Your task to perform on an android device: set the stopwatch Image 0: 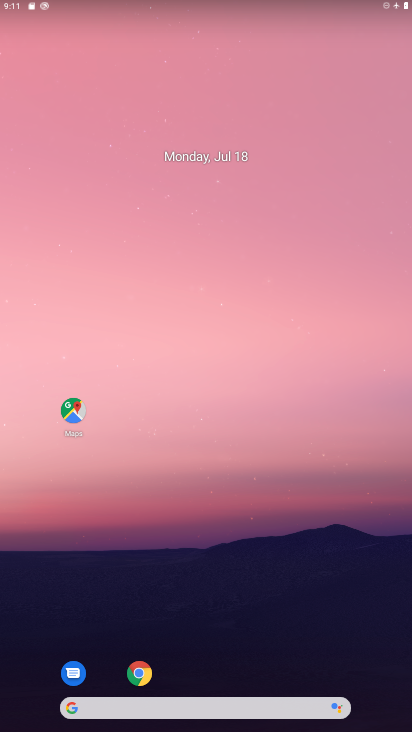
Step 0: press home button
Your task to perform on an android device: set the stopwatch Image 1: 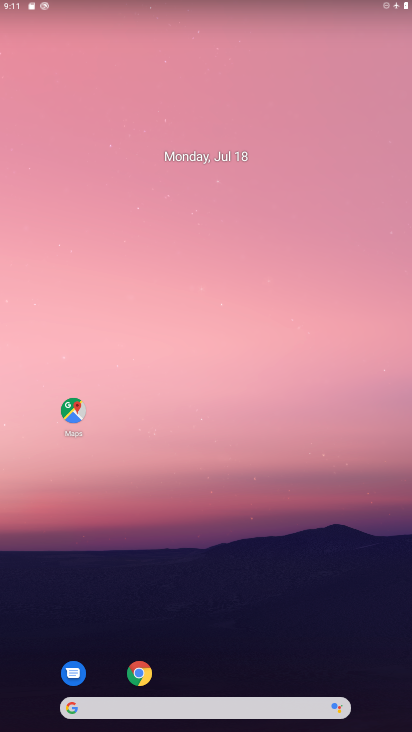
Step 1: drag from (293, 651) to (254, 56)
Your task to perform on an android device: set the stopwatch Image 2: 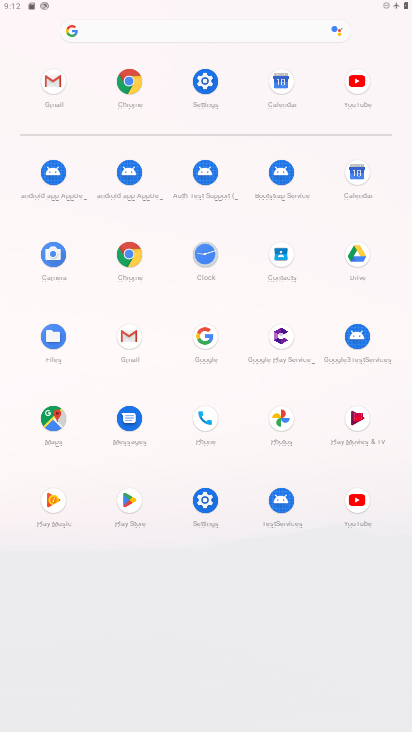
Step 2: click (201, 250)
Your task to perform on an android device: set the stopwatch Image 3: 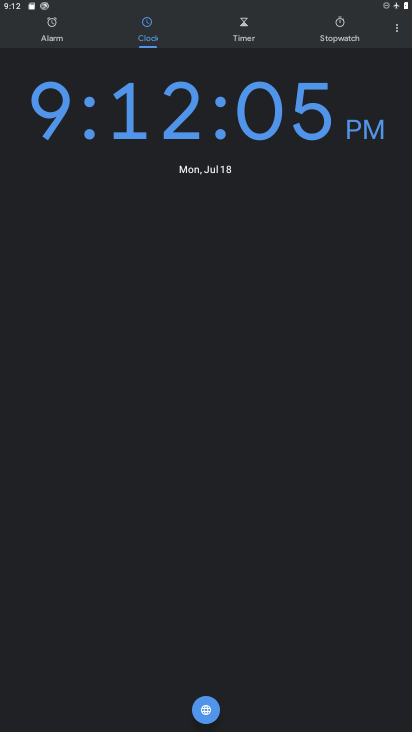
Step 3: click (347, 19)
Your task to perform on an android device: set the stopwatch Image 4: 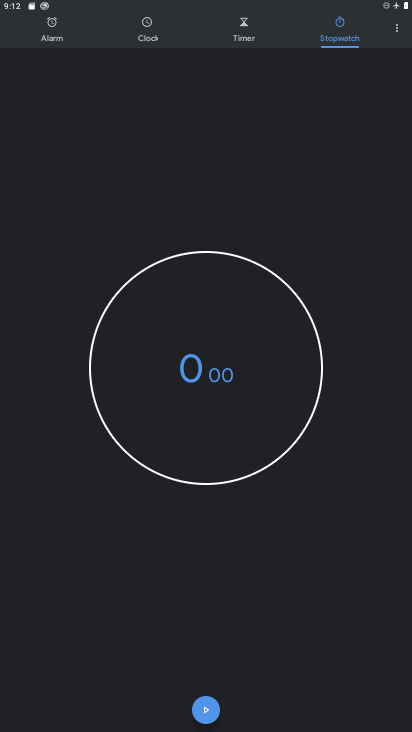
Step 4: click (206, 707)
Your task to perform on an android device: set the stopwatch Image 5: 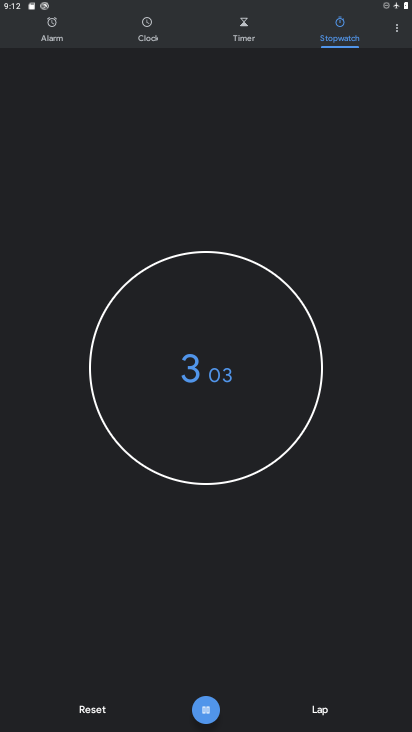
Step 5: task complete